Your task to perform on an android device: Do I have any events tomorrow? Image 0: 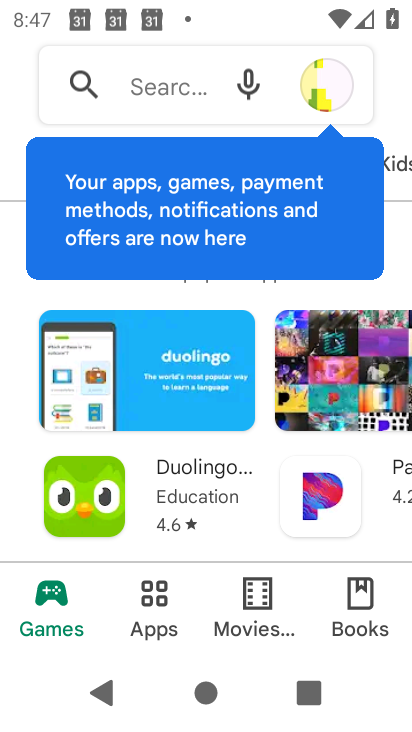
Step 0: press home button
Your task to perform on an android device: Do I have any events tomorrow? Image 1: 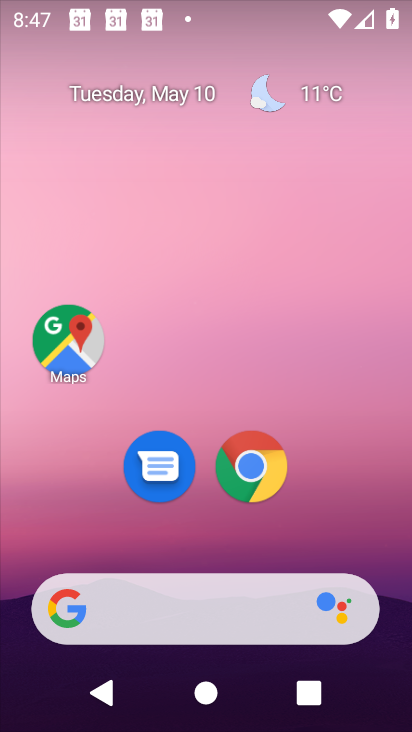
Step 1: drag from (228, 553) to (280, 44)
Your task to perform on an android device: Do I have any events tomorrow? Image 2: 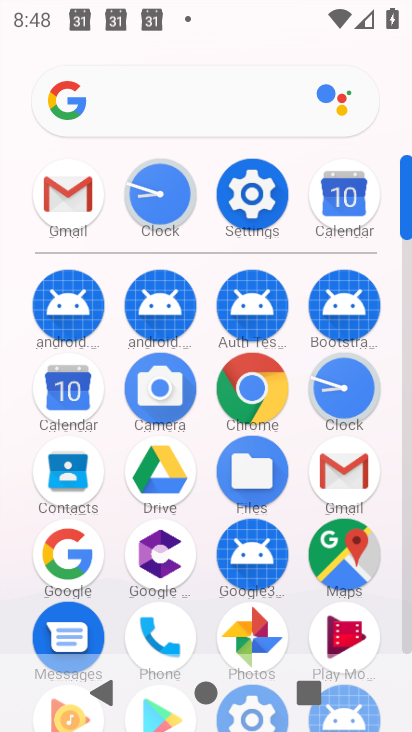
Step 2: click (336, 218)
Your task to perform on an android device: Do I have any events tomorrow? Image 3: 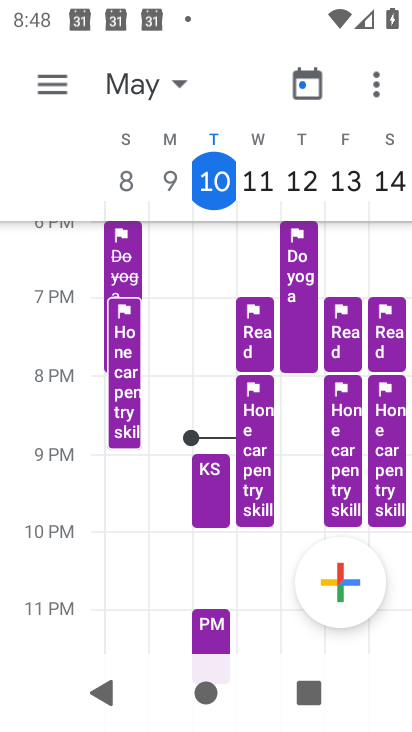
Step 3: click (65, 82)
Your task to perform on an android device: Do I have any events tomorrow? Image 4: 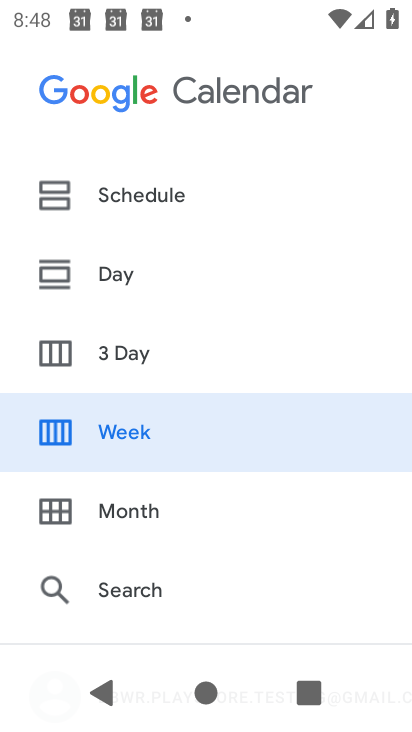
Step 4: click (139, 345)
Your task to perform on an android device: Do I have any events tomorrow? Image 5: 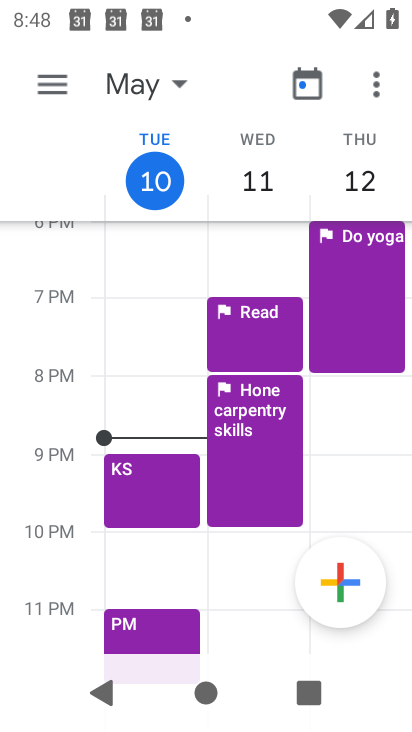
Step 5: task complete